Your task to perform on an android device: Open calendar and show me the third week of next month Image 0: 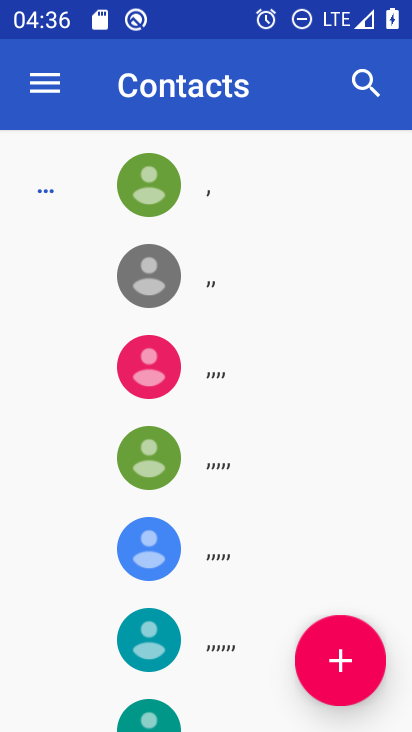
Step 0: press home button
Your task to perform on an android device: Open calendar and show me the third week of next month Image 1: 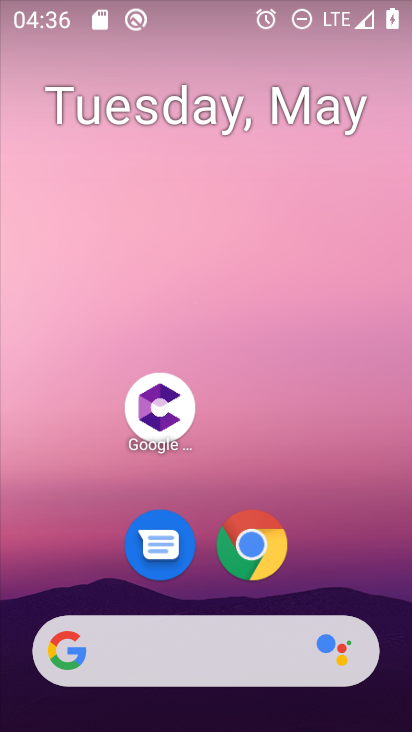
Step 1: drag from (350, 570) to (358, 233)
Your task to perform on an android device: Open calendar and show me the third week of next month Image 2: 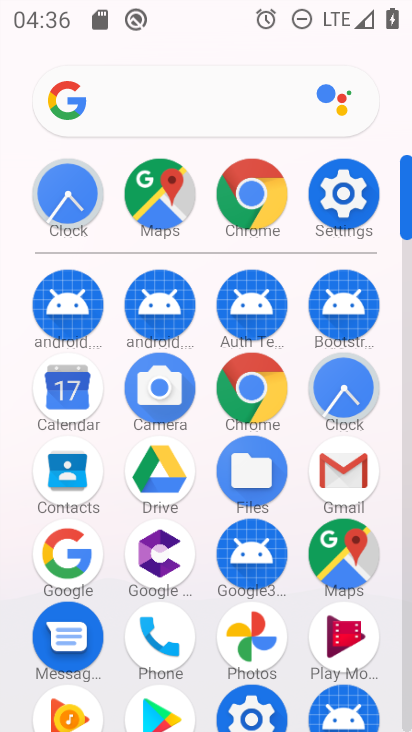
Step 2: click (79, 407)
Your task to perform on an android device: Open calendar and show me the third week of next month Image 3: 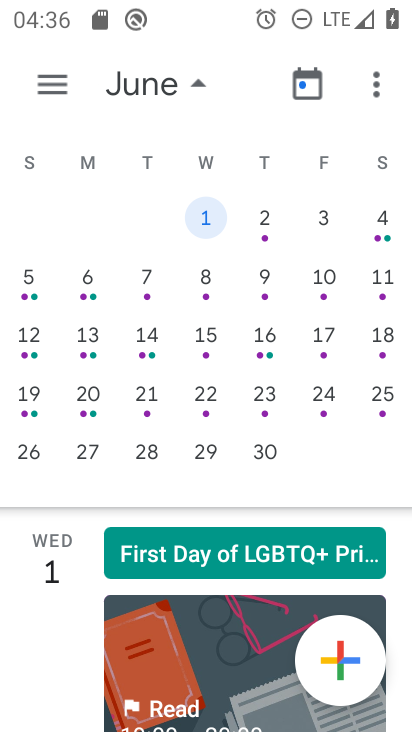
Step 3: click (94, 342)
Your task to perform on an android device: Open calendar and show me the third week of next month Image 4: 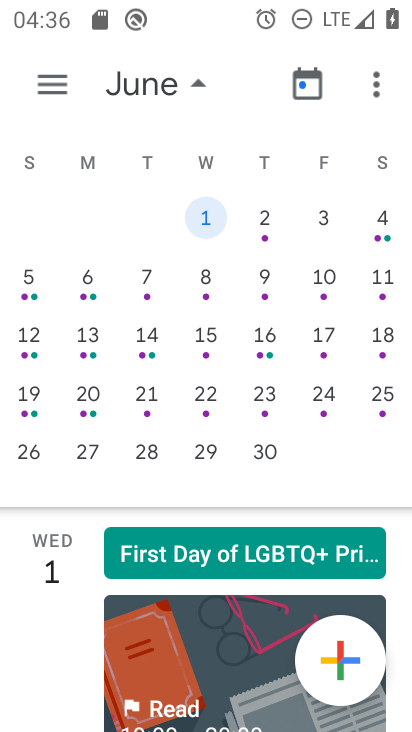
Step 4: click (94, 342)
Your task to perform on an android device: Open calendar and show me the third week of next month Image 5: 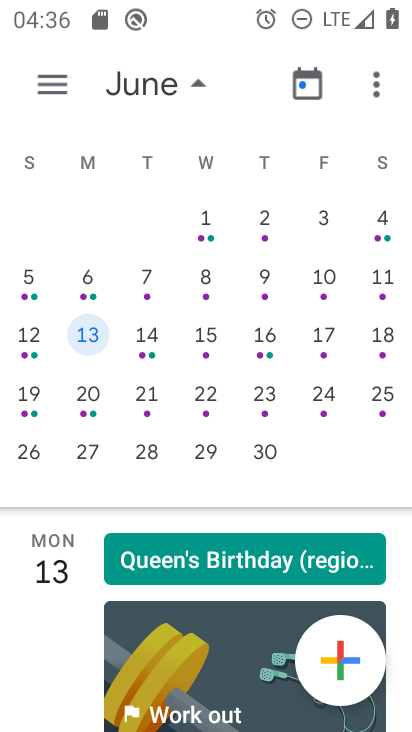
Step 5: task complete